Your task to perform on an android device: turn off location history Image 0: 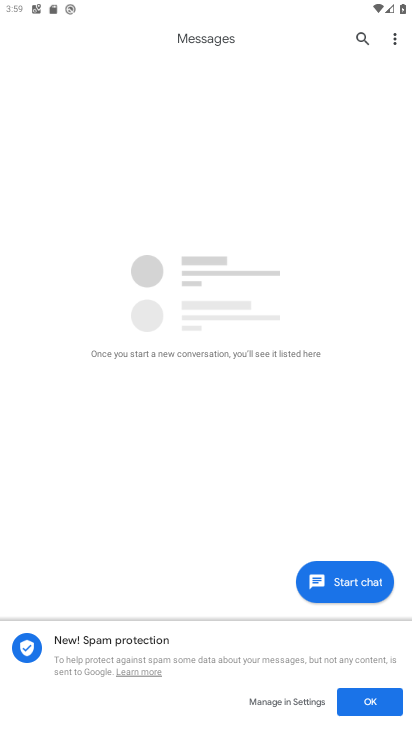
Step 0: press home button
Your task to perform on an android device: turn off location history Image 1: 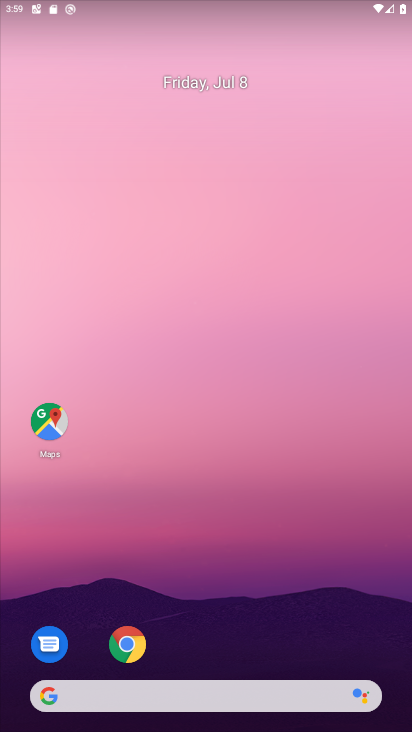
Step 1: click (51, 420)
Your task to perform on an android device: turn off location history Image 2: 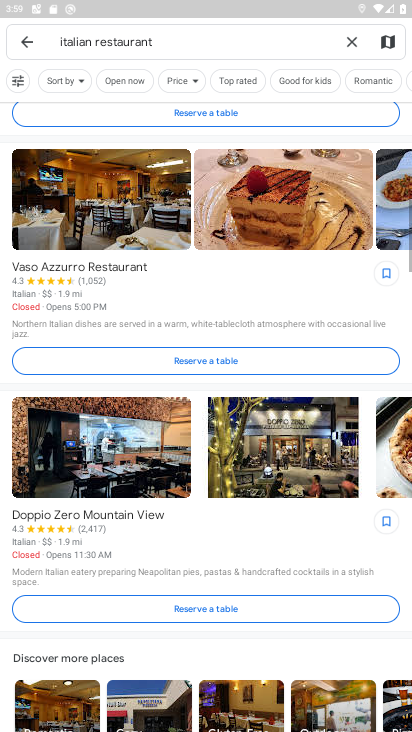
Step 2: click (349, 44)
Your task to perform on an android device: turn off location history Image 3: 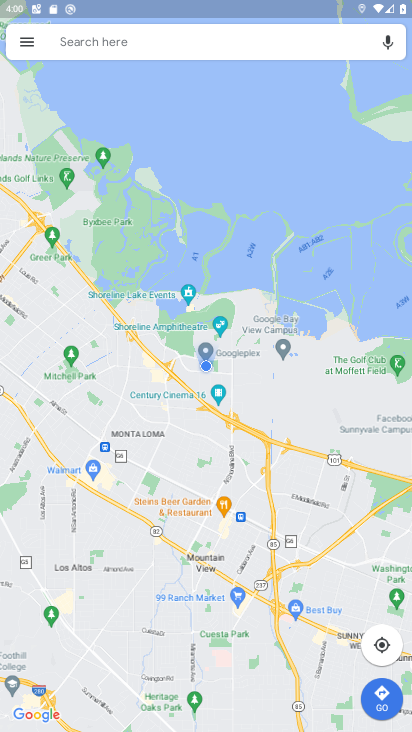
Step 3: click (25, 39)
Your task to perform on an android device: turn off location history Image 4: 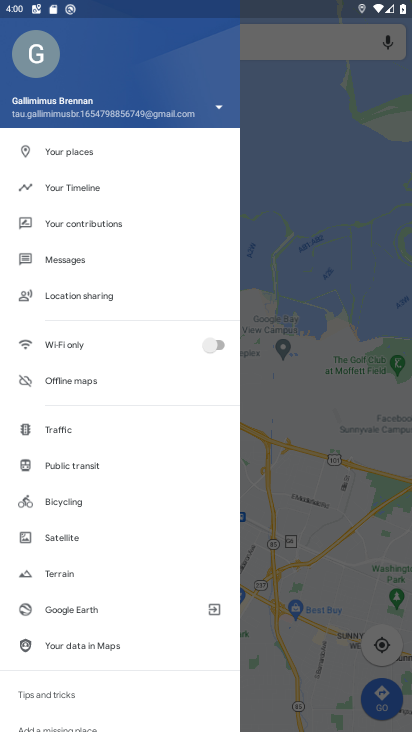
Step 4: drag from (101, 661) to (113, 344)
Your task to perform on an android device: turn off location history Image 5: 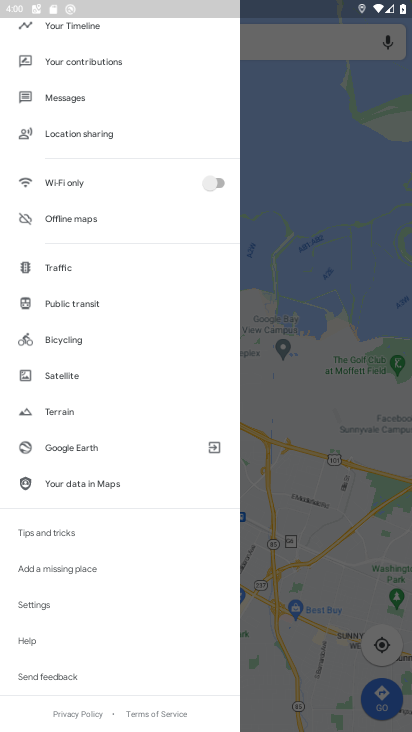
Step 5: click (22, 601)
Your task to perform on an android device: turn off location history Image 6: 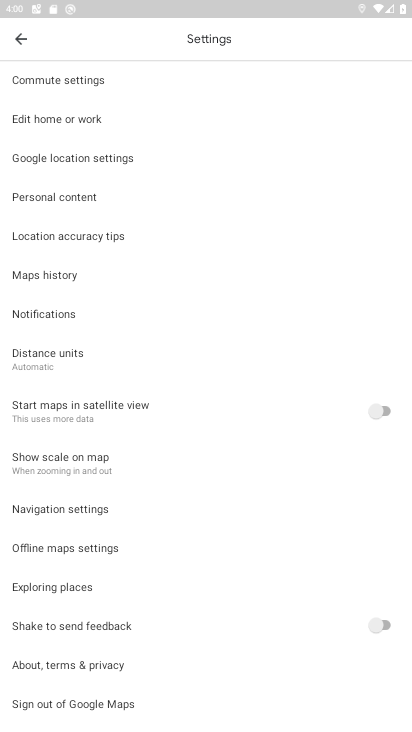
Step 6: click (54, 196)
Your task to perform on an android device: turn off location history Image 7: 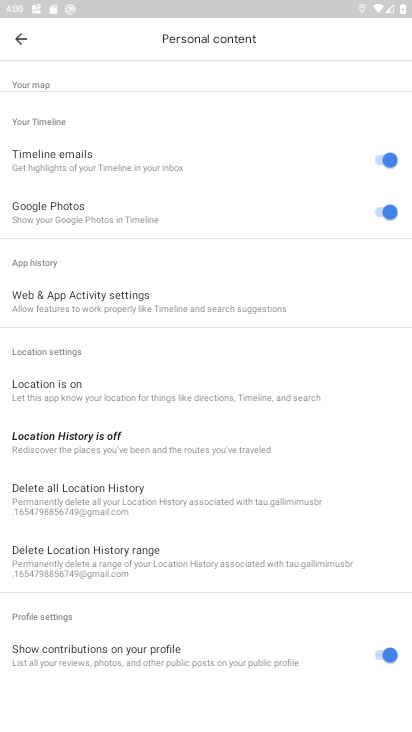
Step 7: click (81, 440)
Your task to perform on an android device: turn off location history Image 8: 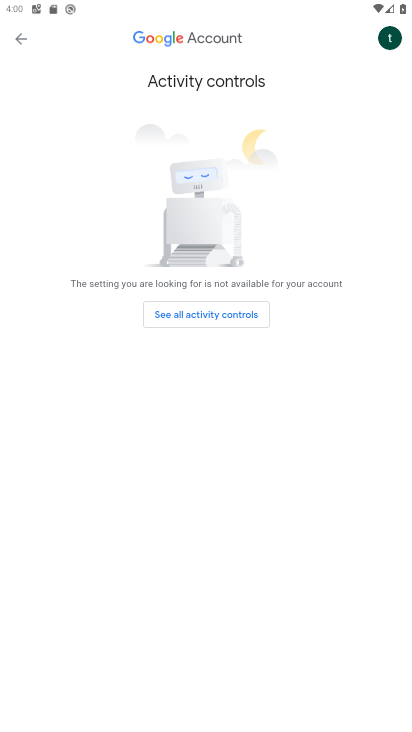
Step 8: task complete